Your task to perform on an android device: Show me recent news Image 0: 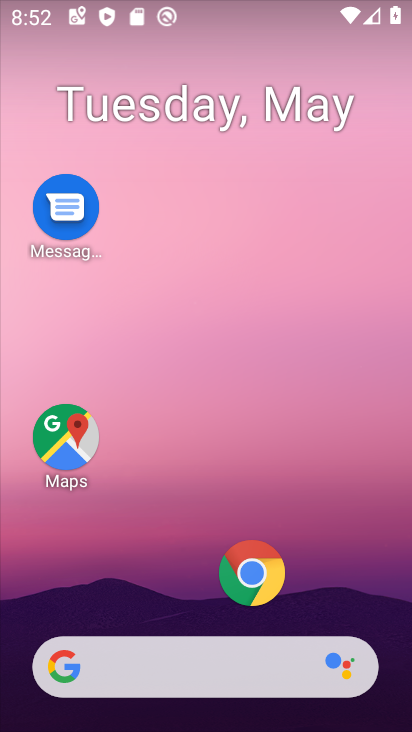
Step 0: drag from (342, 691) to (159, 96)
Your task to perform on an android device: Show me recent news Image 1: 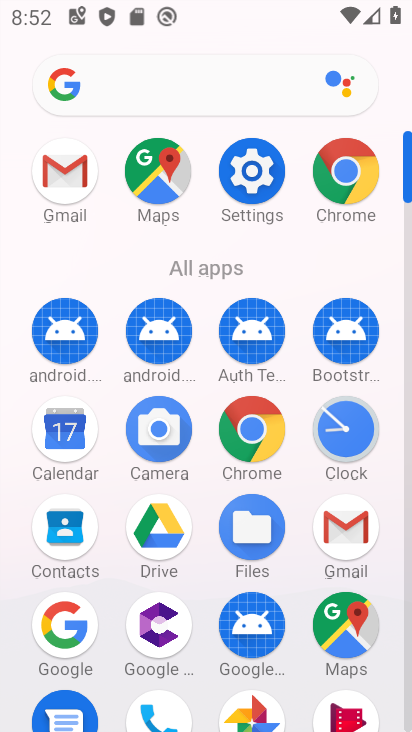
Step 1: task complete